Your task to perform on an android device: find snoozed emails in the gmail app Image 0: 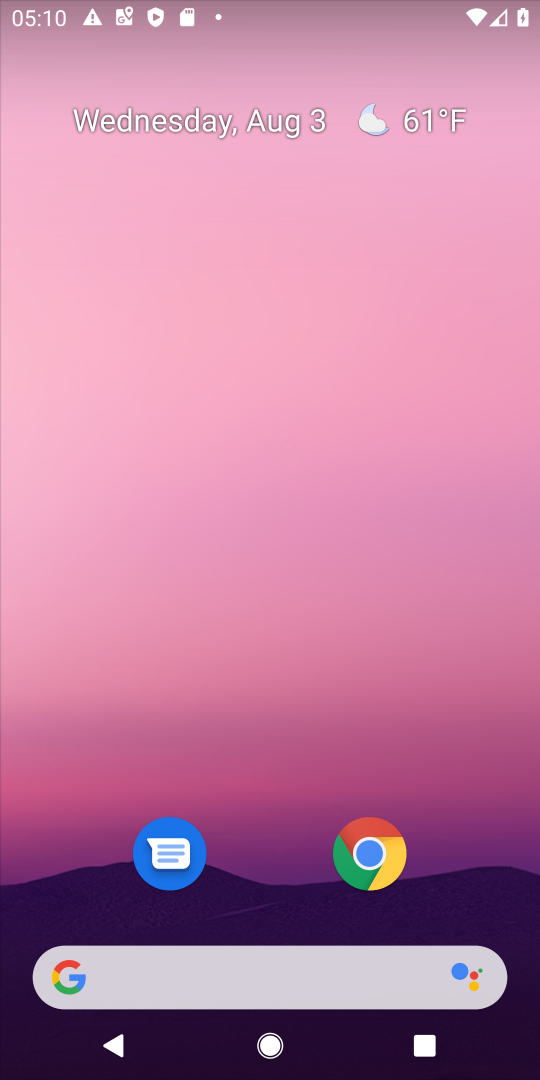
Step 0: drag from (244, 899) to (370, 46)
Your task to perform on an android device: find snoozed emails in the gmail app Image 1: 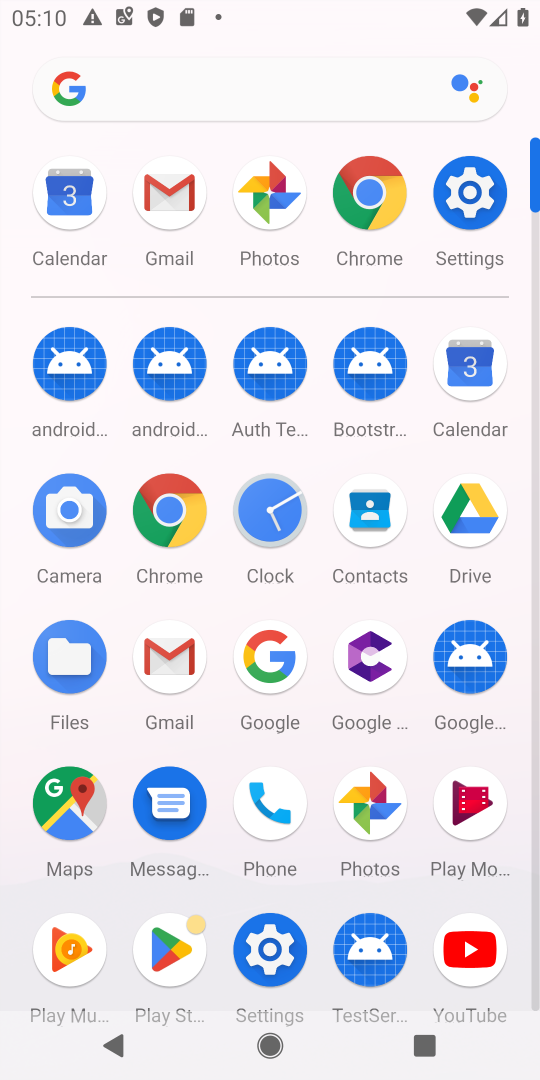
Step 1: click (157, 658)
Your task to perform on an android device: find snoozed emails in the gmail app Image 2: 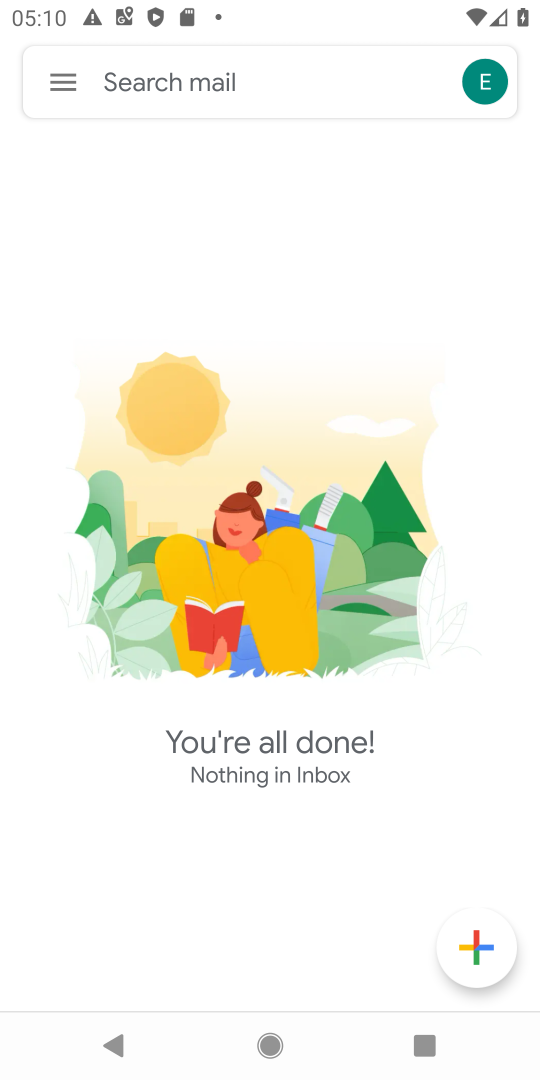
Step 2: click (48, 73)
Your task to perform on an android device: find snoozed emails in the gmail app Image 3: 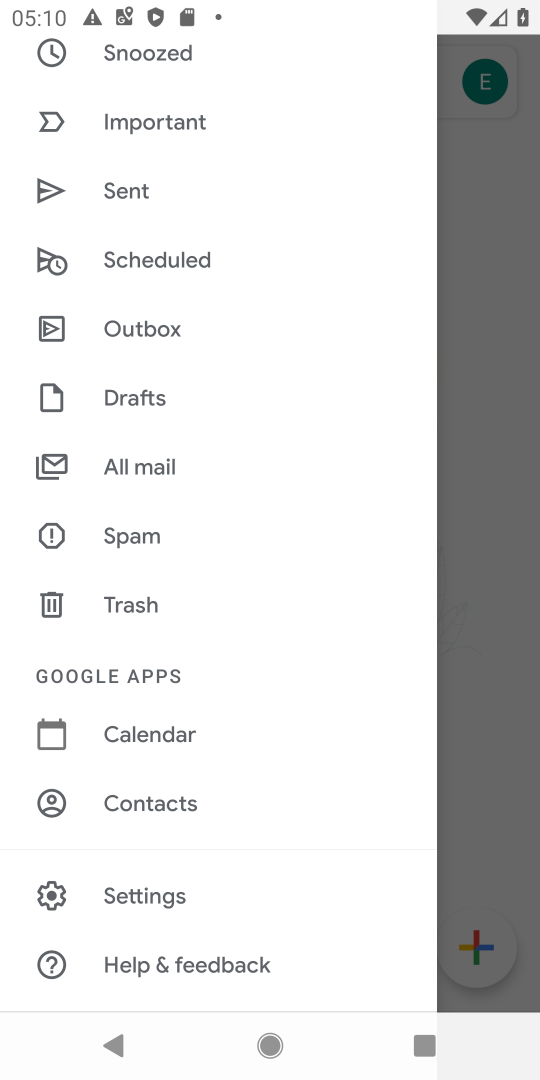
Step 3: click (164, 50)
Your task to perform on an android device: find snoozed emails in the gmail app Image 4: 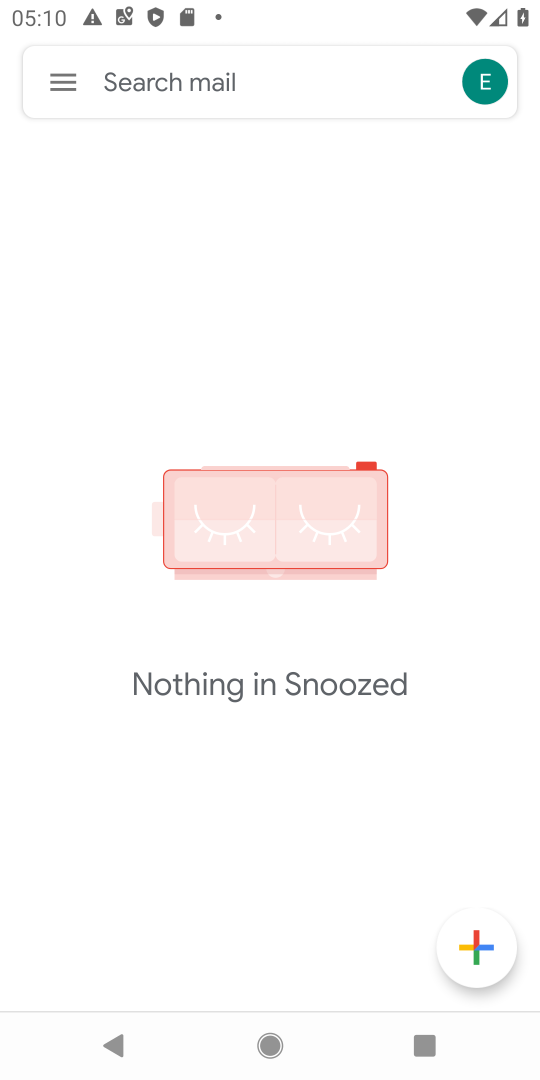
Step 4: task complete